Your task to perform on an android device: Open Chrome and go to the settings page Image 0: 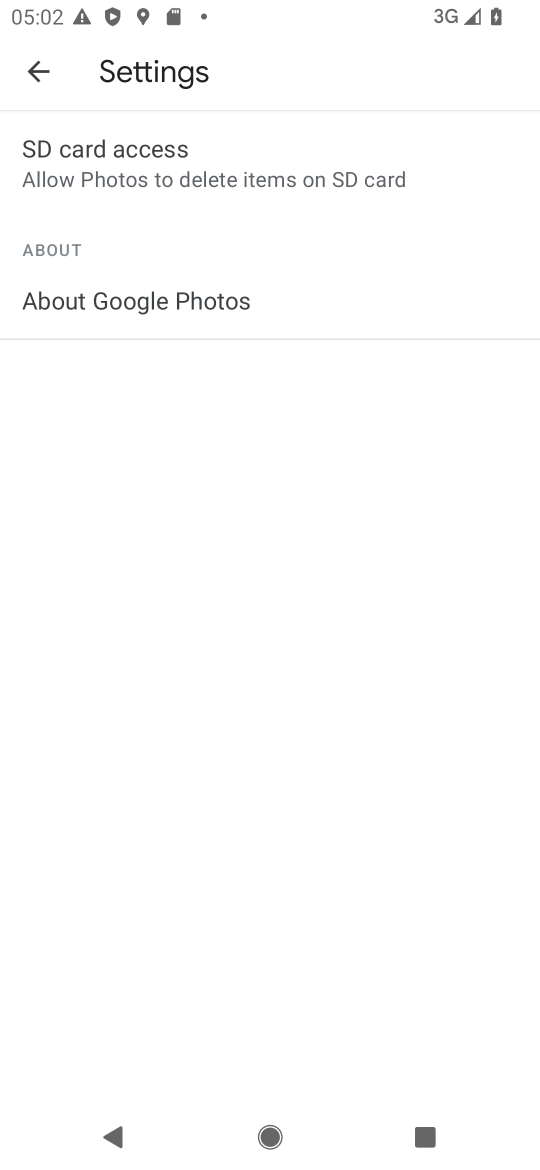
Step 0: press home button
Your task to perform on an android device: Open Chrome and go to the settings page Image 1: 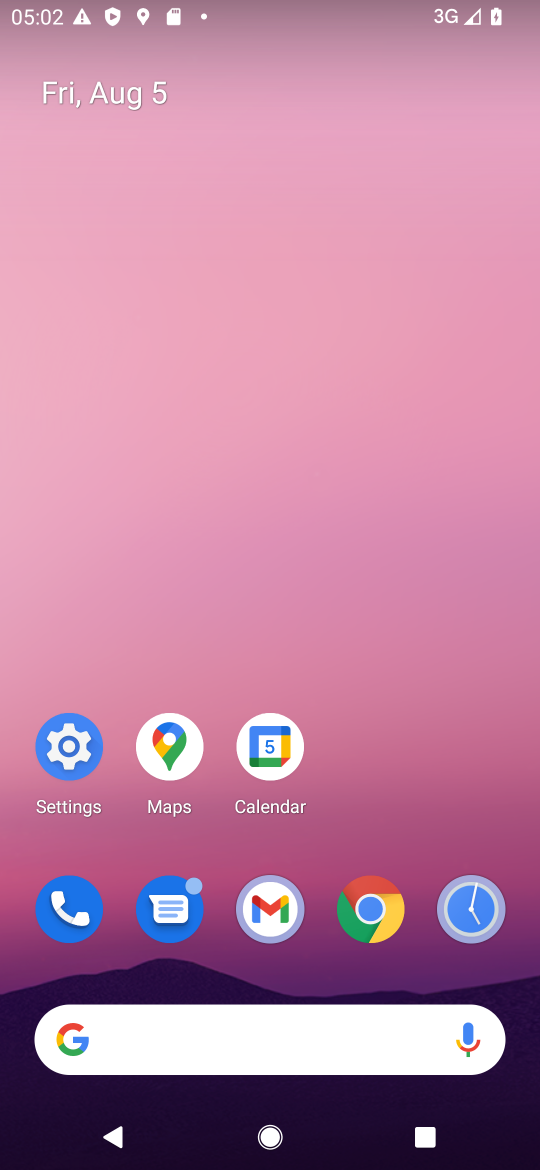
Step 1: click (364, 919)
Your task to perform on an android device: Open Chrome and go to the settings page Image 2: 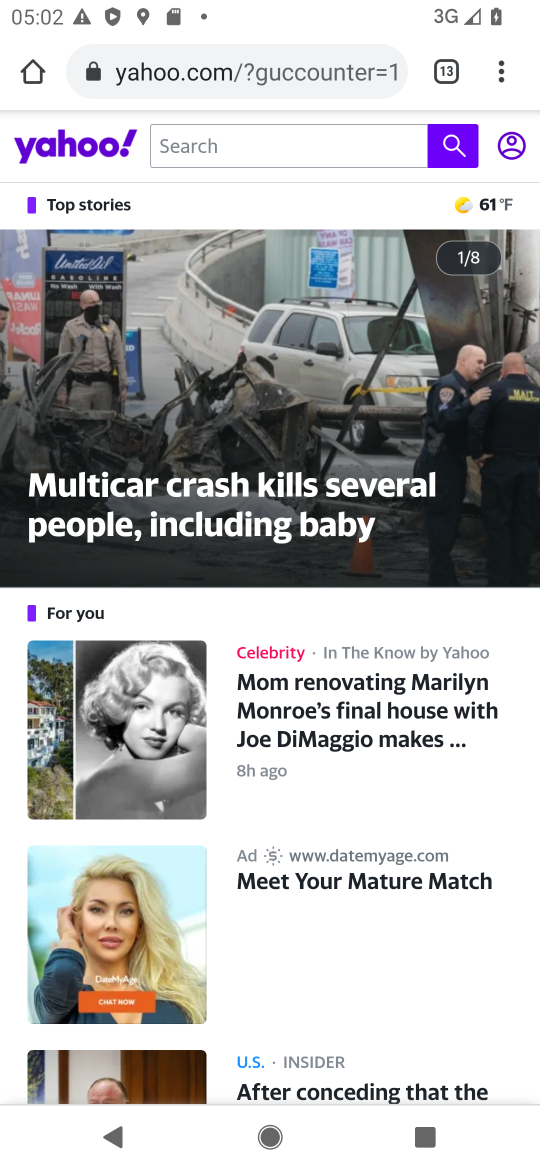
Step 2: click (506, 69)
Your task to perform on an android device: Open Chrome and go to the settings page Image 3: 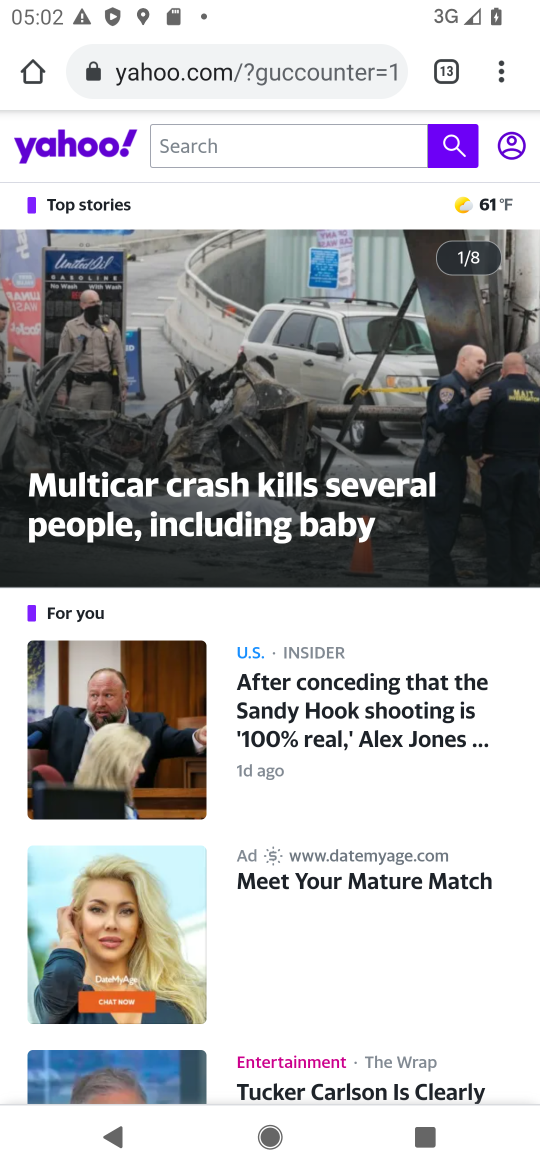
Step 3: click (507, 65)
Your task to perform on an android device: Open Chrome and go to the settings page Image 4: 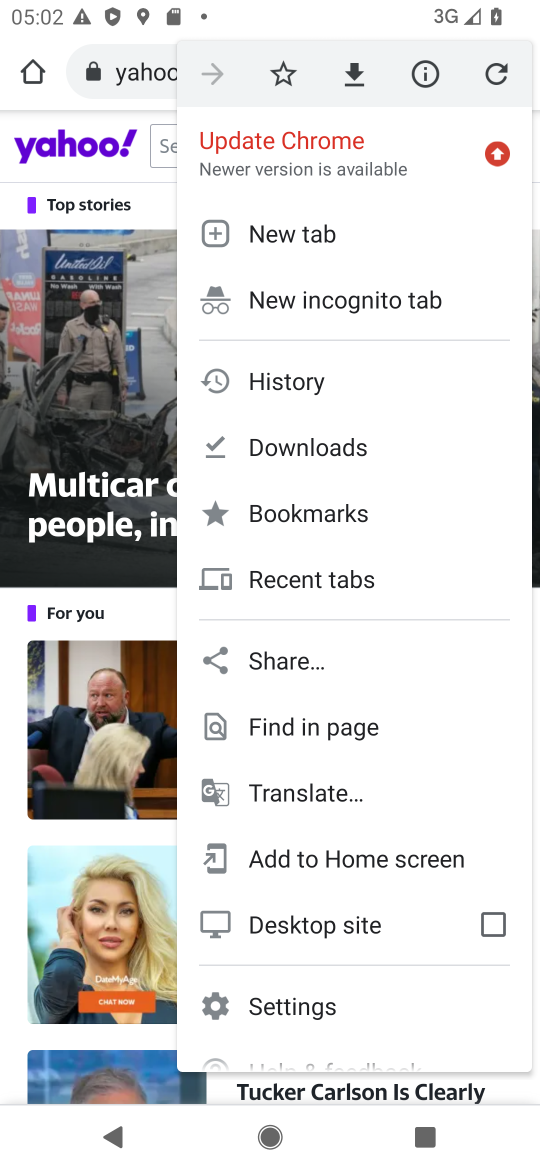
Step 4: click (275, 1010)
Your task to perform on an android device: Open Chrome and go to the settings page Image 5: 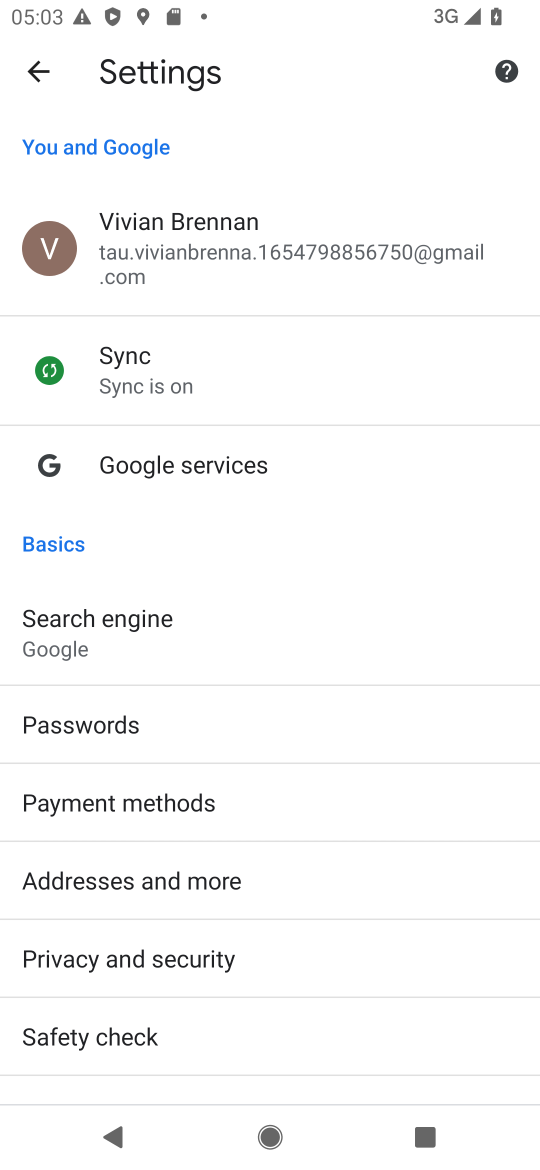
Step 5: task complete